Your task to perform on an android device: check out phone information Image 0: 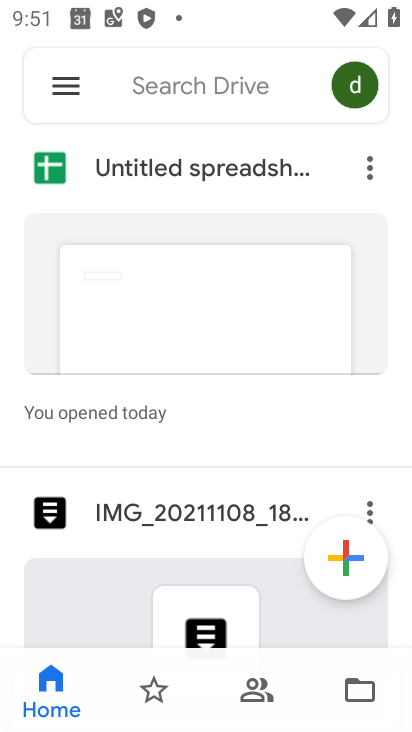
Step 0: press home button
Your task to perform on an android device: check out phone information Image 1: 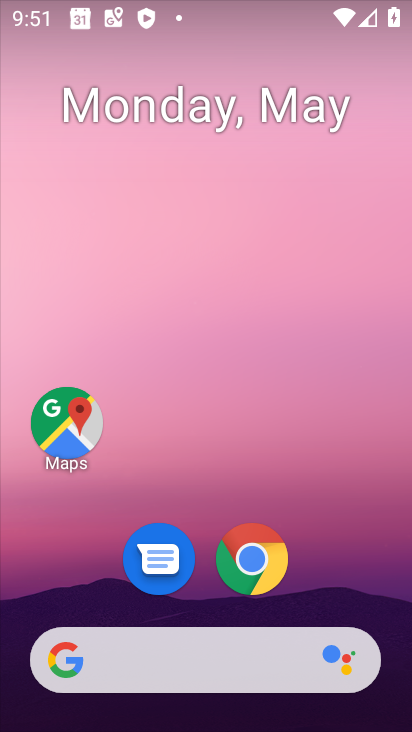
Step 1: drag from (343, 564) to (232, 192)
Your task to perform on an android device: check out phone information Image 2: 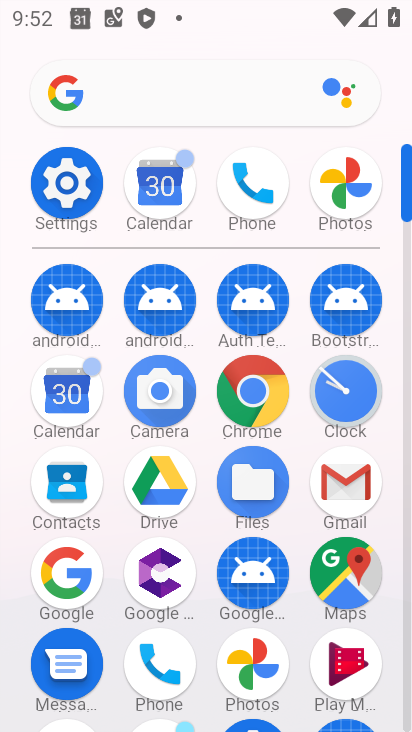
Step 2: click (76, 187)
Your task to perform on an android device: check out phone information Image 3: 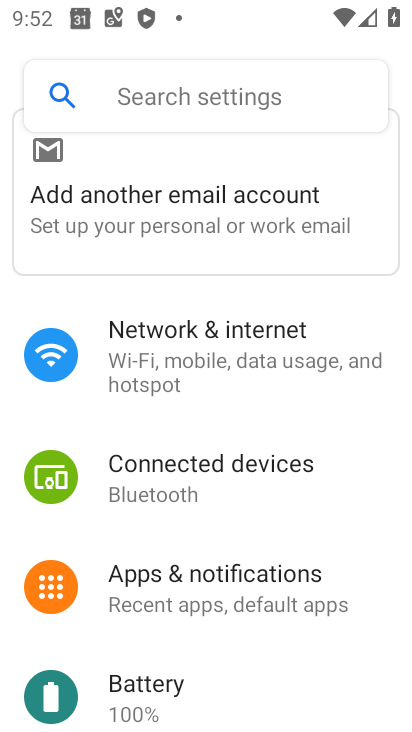
Step 3: task complete